Your task to perform on an android device: change the clock style Image 0: 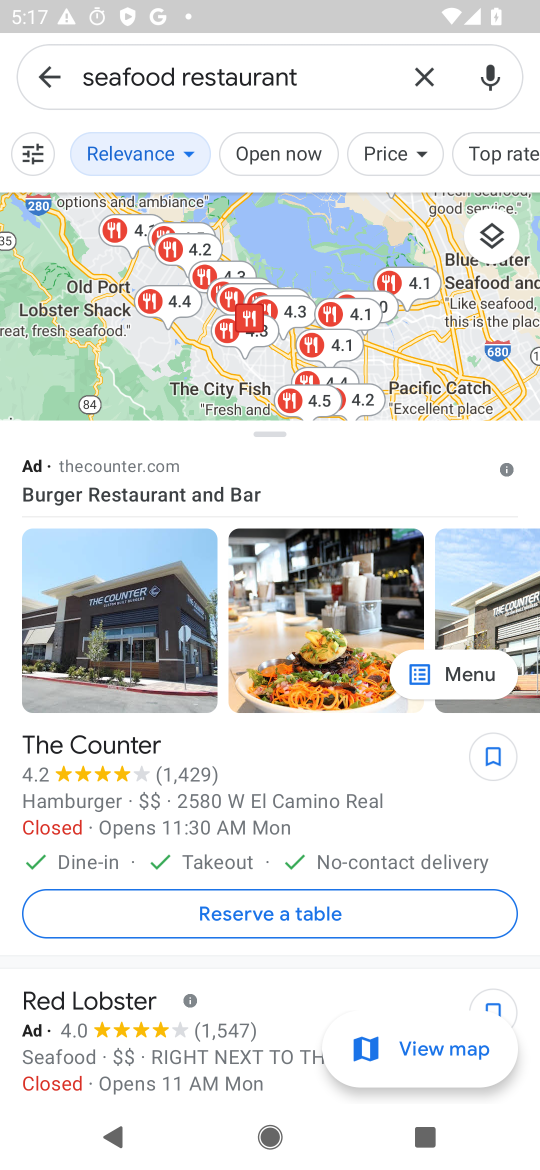
Step 0: press home button
Your task to perform on an android device: change the clock style Image 1: 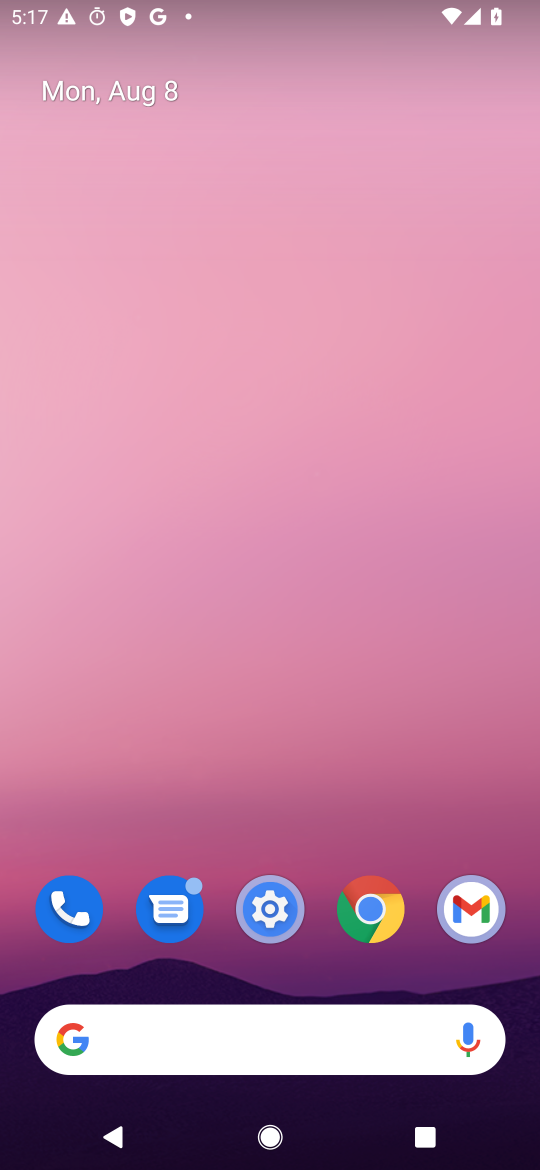
Step 1: drag from (244, 1044) to (485, 163)
Your task to perform on an android device: change the clock style Image 2: 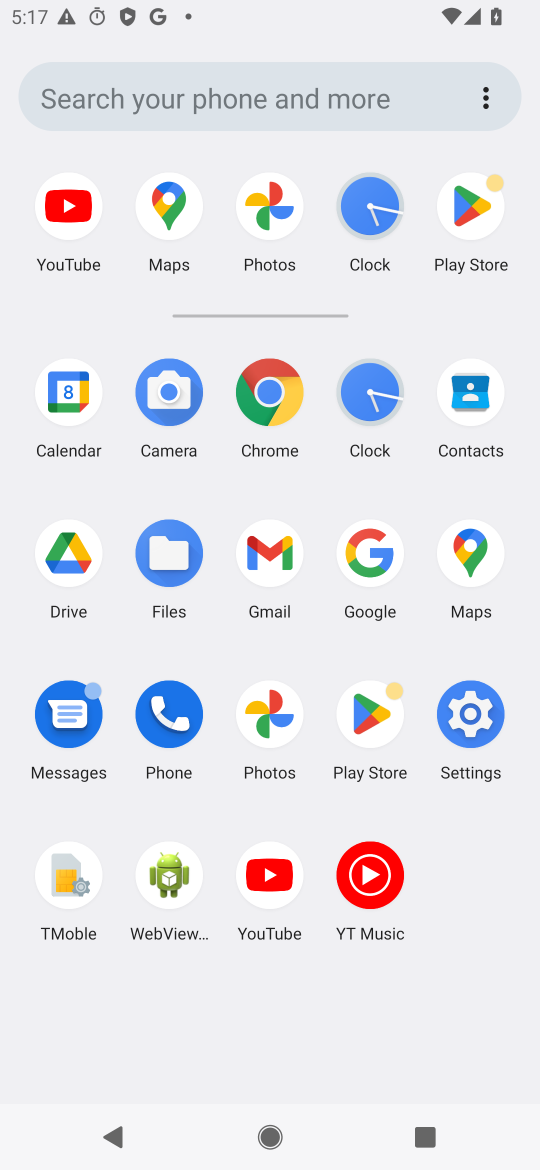
Step 2: click (371, 398)
Your task to perform on an android device: change the clock style Image 3: 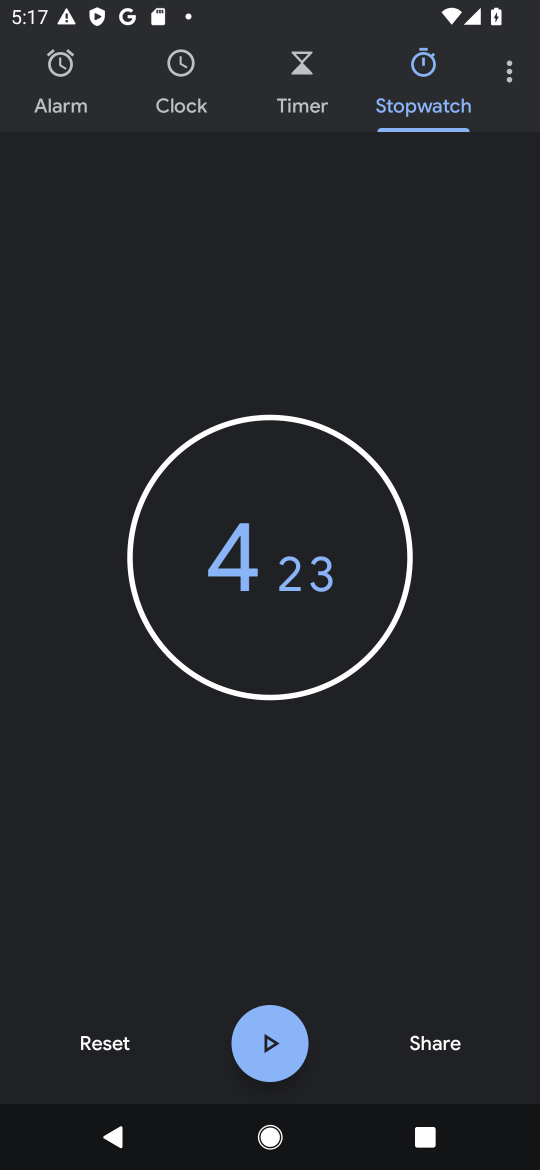
Step 3: click (498, 67)
Your task to perform on an android device: change the clock style Image 4: 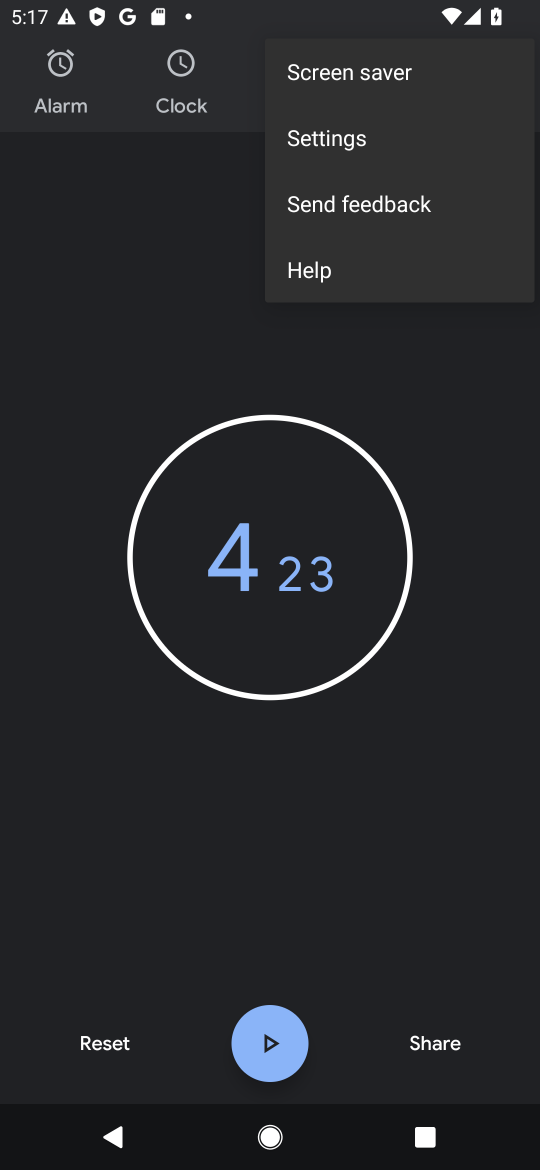
Step 4: click (365, 148)
Your task to perform on an android device: change the clock style Image 5: 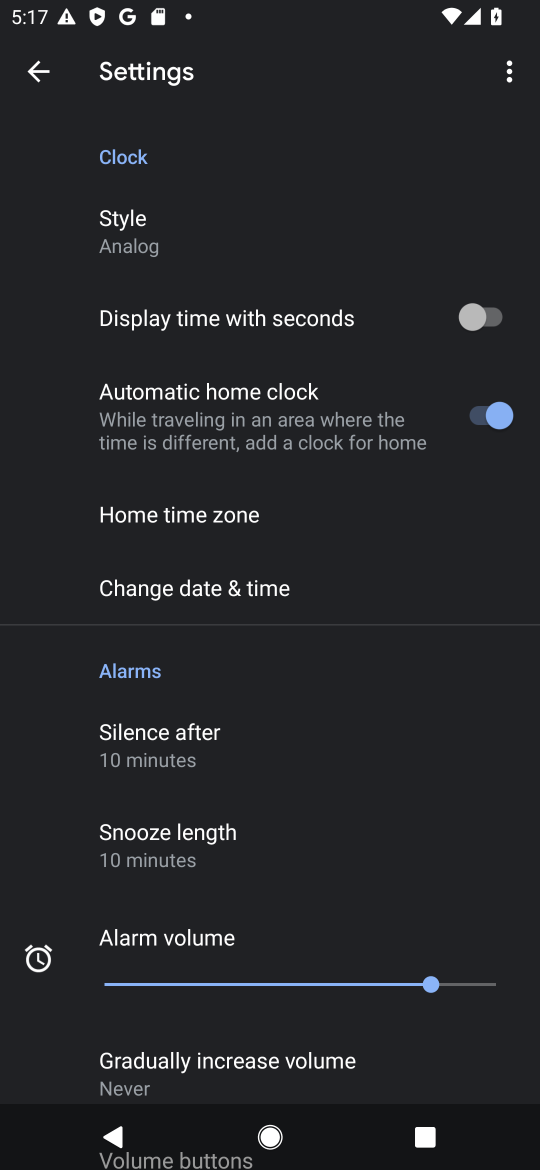
Step 5: click (155, 246)
Your task to perform on an android device: change the clock style Image 6: 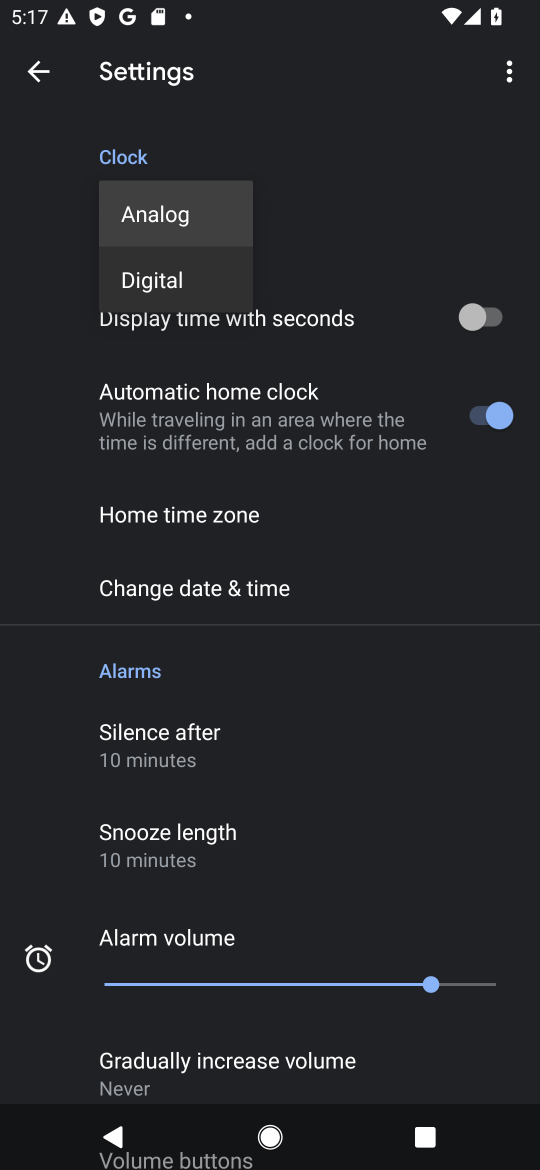
Step 6: click (197, 282)
Your task to perform on an android device: change the clock style Image 7: 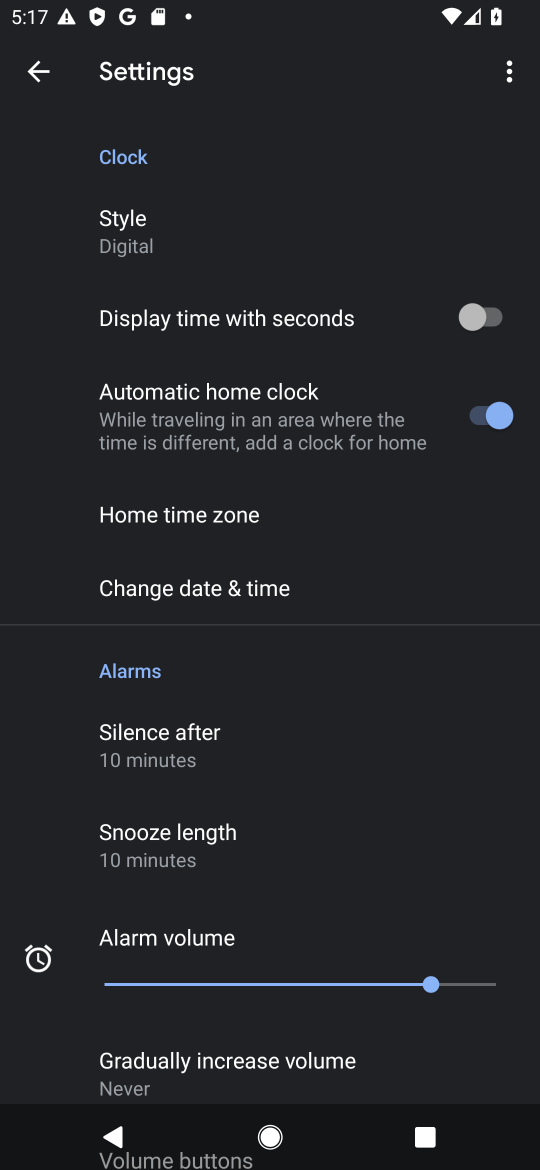
Step 7: task complete